Your task to perform on an android device: add a label to a message in the gmail app Image 0: 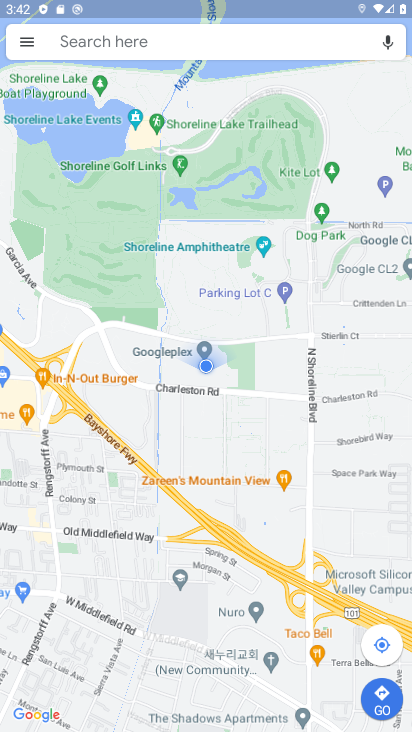
Step 0: press back button
Your task to perform on an android device: add a label to a message in the gmail app Image 1: 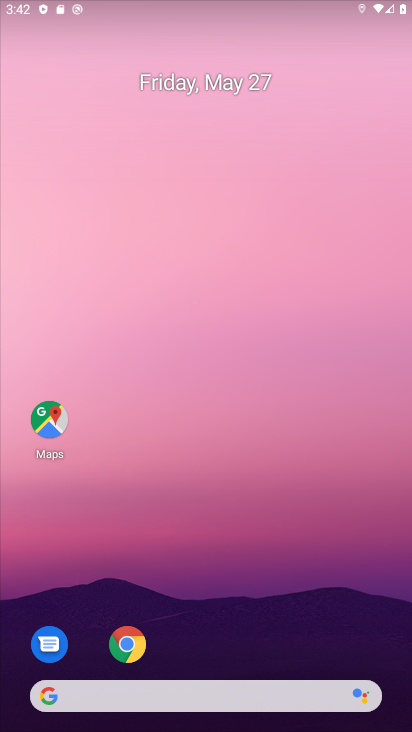
Step 1: press home button
Your task to perform on an android device: add a label to a message in the gmail app Image 2: 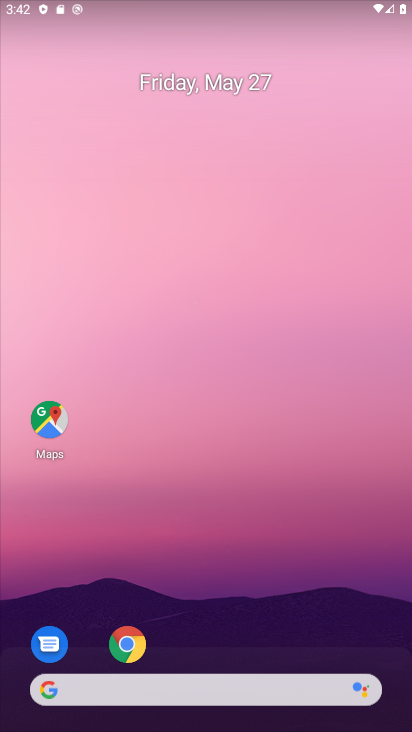
Step 2: drag from (214, 635) to (256, 59)
Your task to perform on an android device: add a label to a message in the gmail app Image 3: 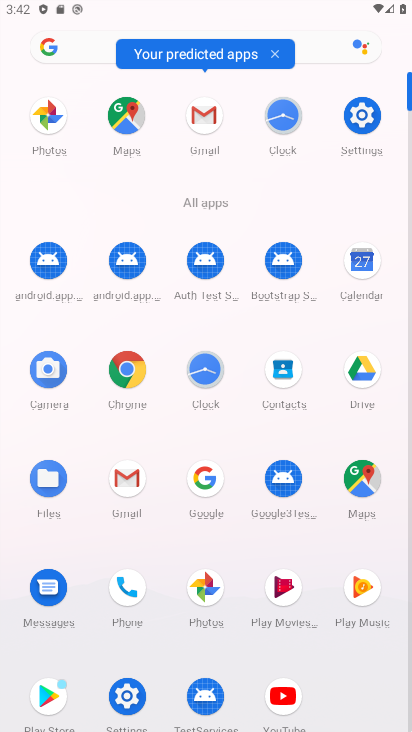
Step 3: click (204, 120)
Your task to perform on an android device: add a label to a message in the gmail app Image 4: 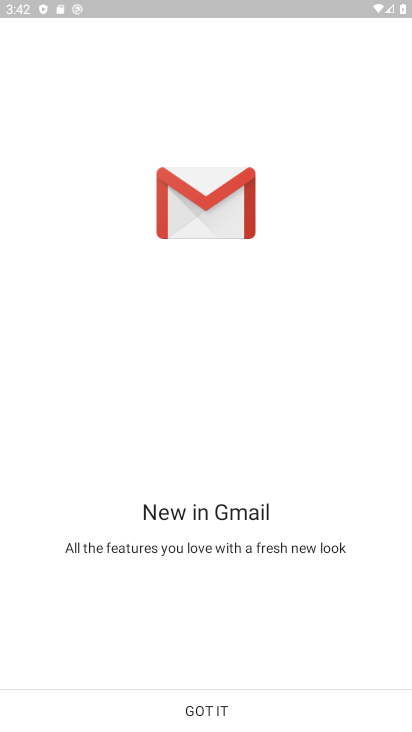
Step 4: click (174, 717)
Your task to perform on an android device: add a label to a message in the gmail app Image 5: 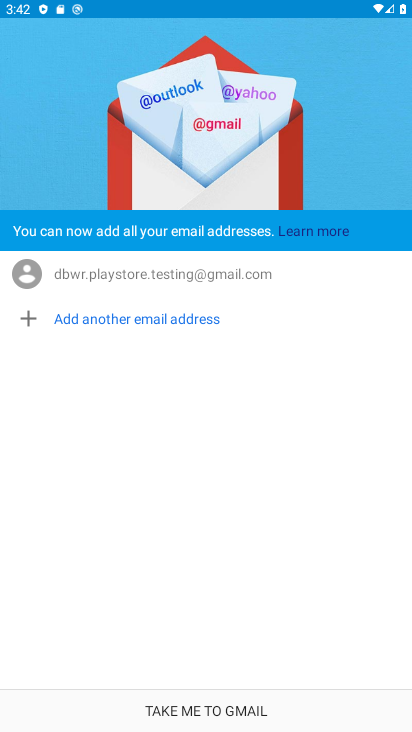
Step 5: click (203, 714)
Your task to perform on an android device: add a label to a message in the gmail app Image 6: 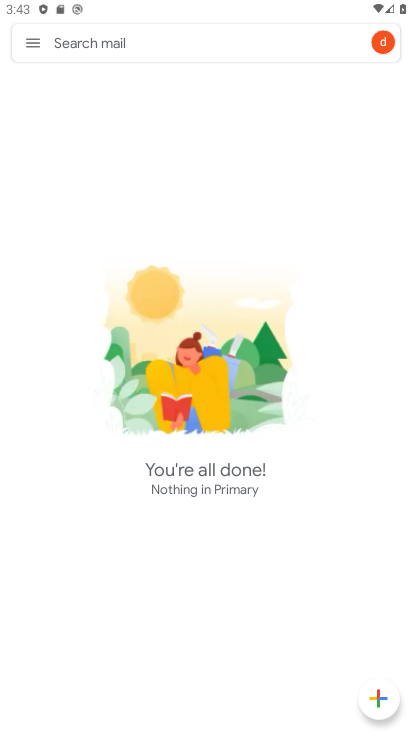
Step 6: click (27, 29)
Your task to perform on an android device: add a label to a message in the gmail app Image 7: 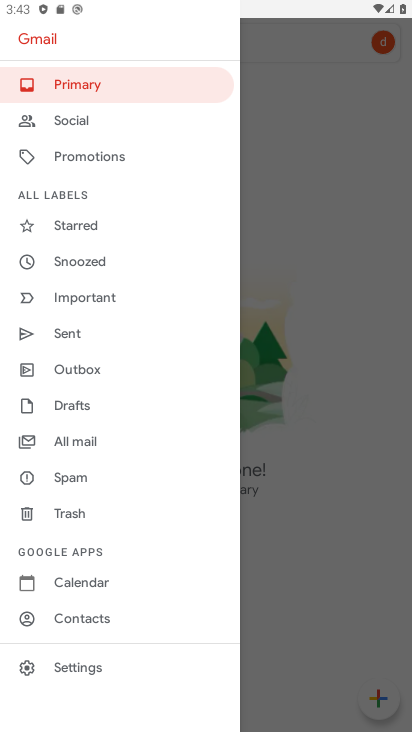
Step 7: click (73, 434)
Your task to perform on an android device: add a label to a message in the gmail app Image 8: 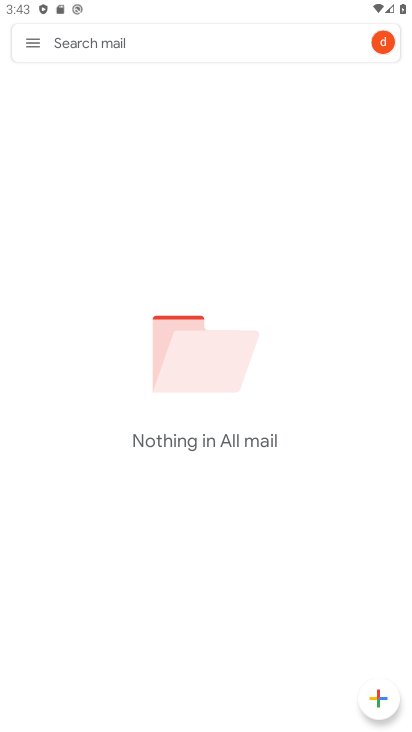
Step 8: task complete